Your task to perform on an android device: install app "McDonald's" Image 0: 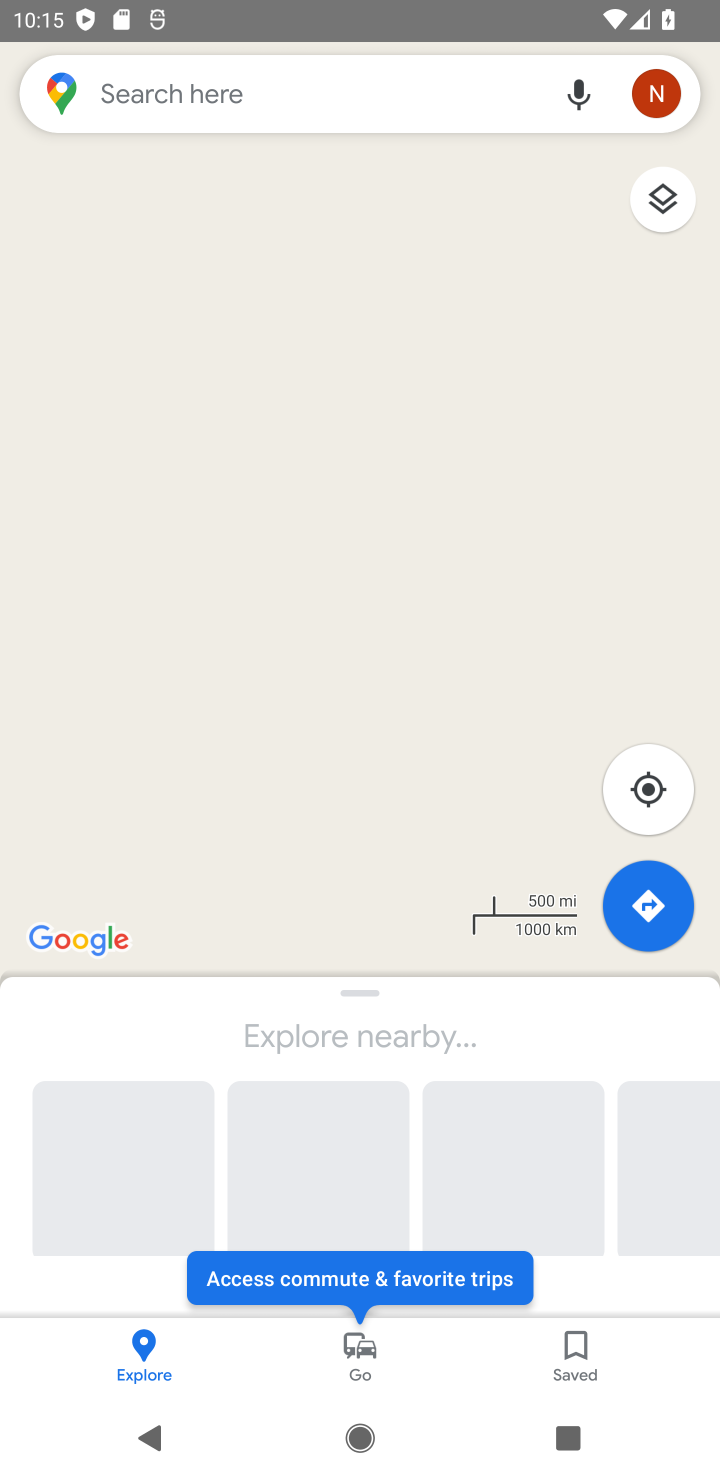
Step 0: press home button
Your task to perform on an android device: install app "McDonald's" Image 1: 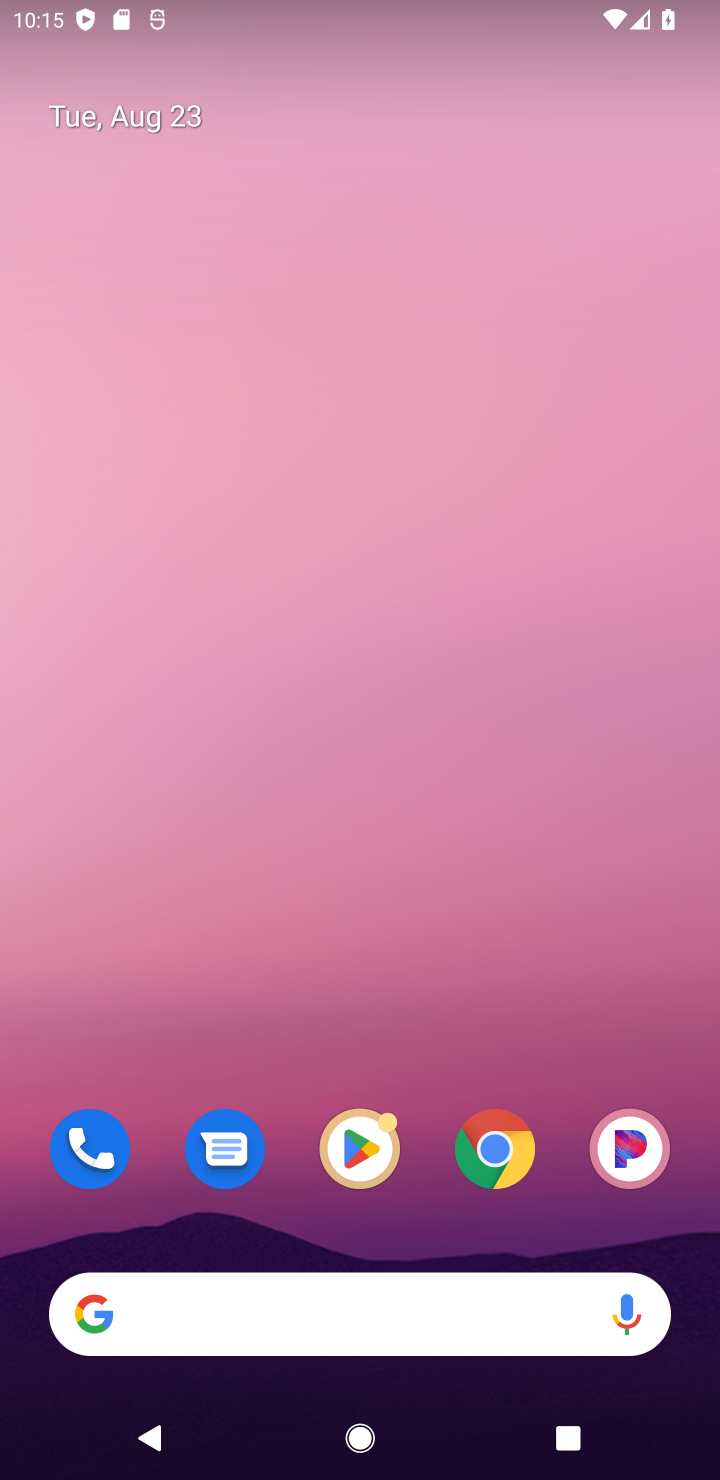
Step 1: click (356, 1156)
Your task to perform on an android device: install app "McDonald's" Image 2: 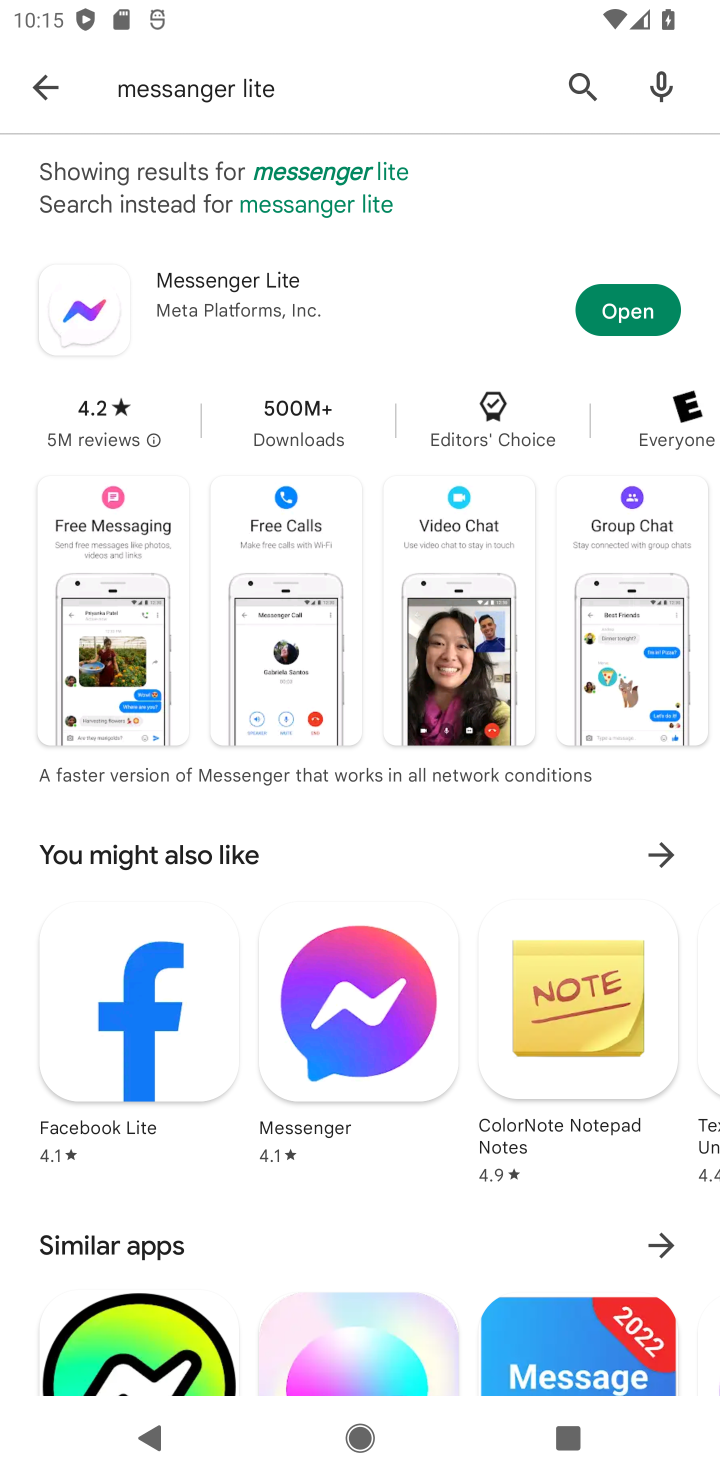
Step 2: click (569, 80)
Your task to perform on an android device: install app "McDonald's" Image 3: 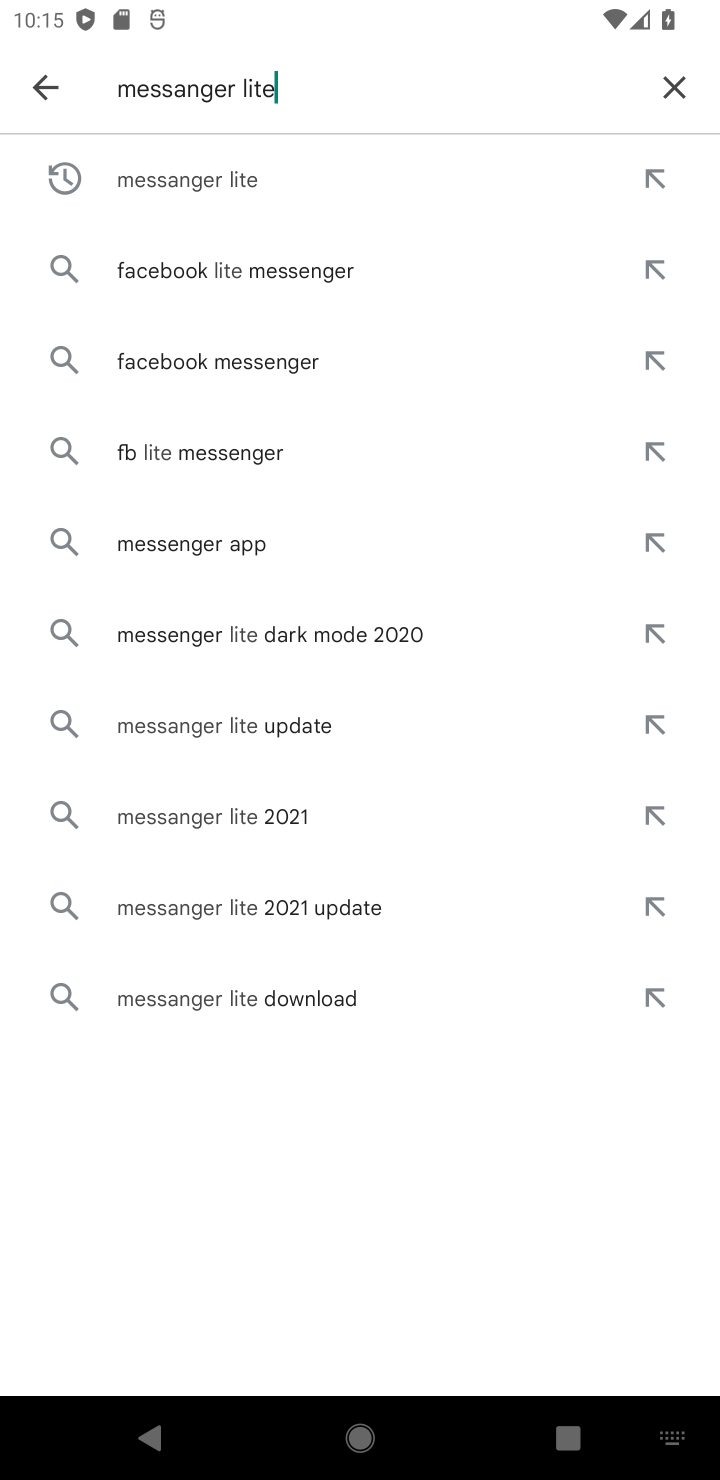
Step 3: click (661, 80)
Your task to perform on an android device: install app "McDonald's" Image 4: 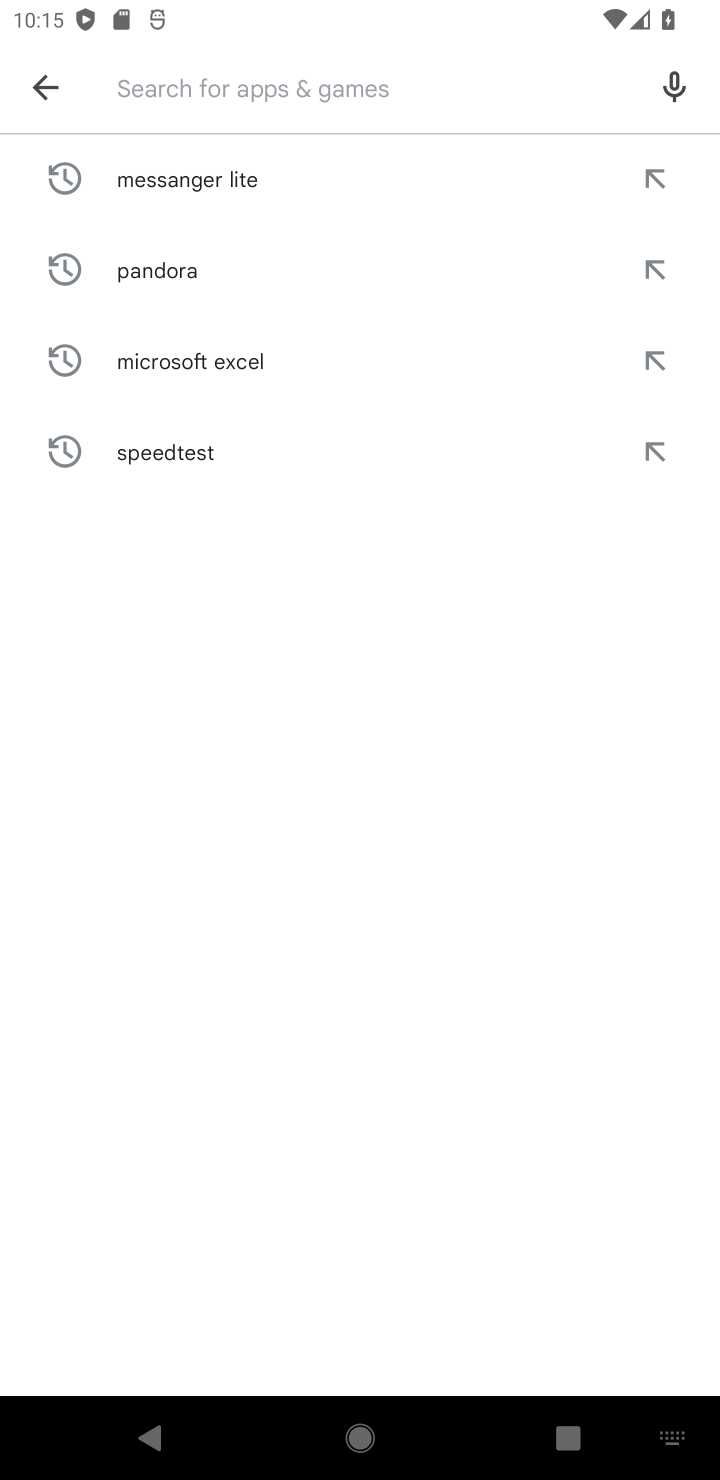
Step 4: type "venmo"
Your task to perform on an android device: install app "McDonald's" Image 5: 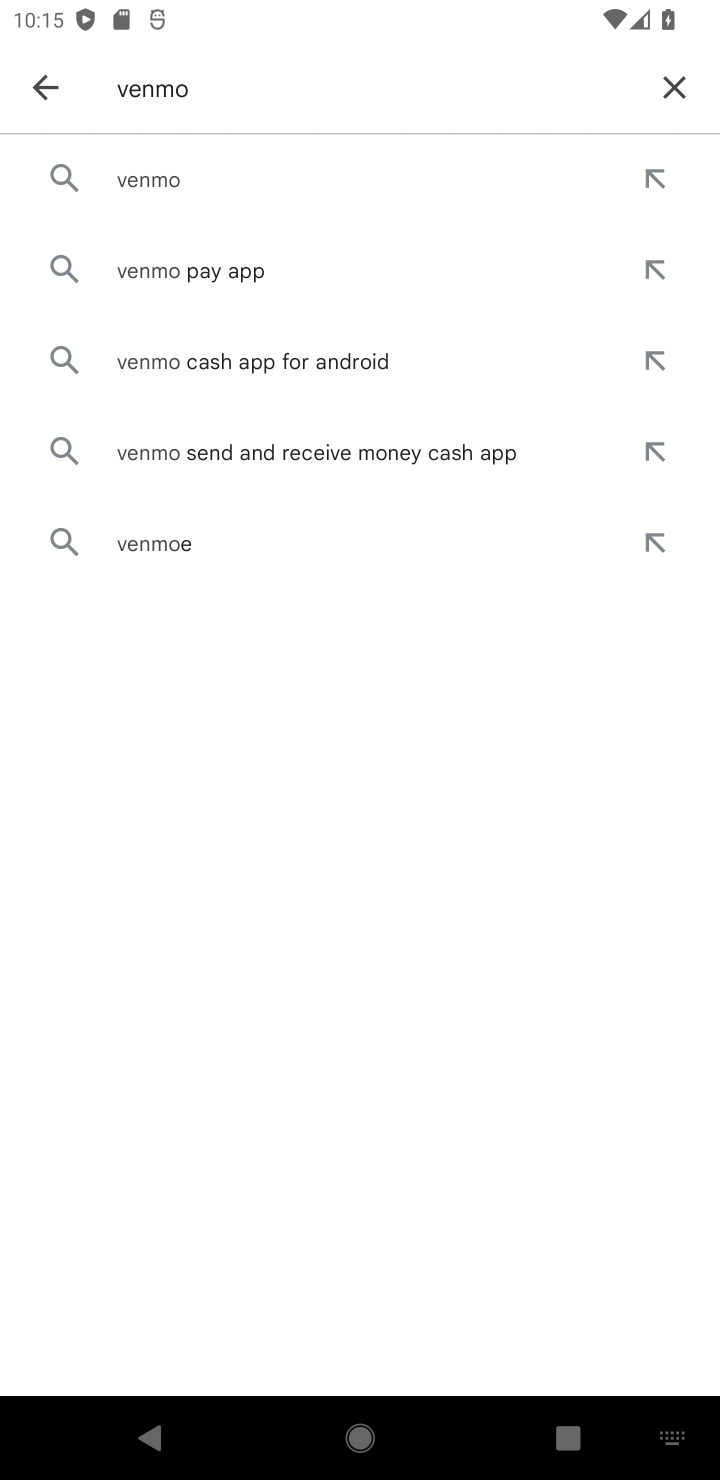
Step 5: click (662, 91)
Your task to perform on an android device: install app "McDonald's" Image 6: 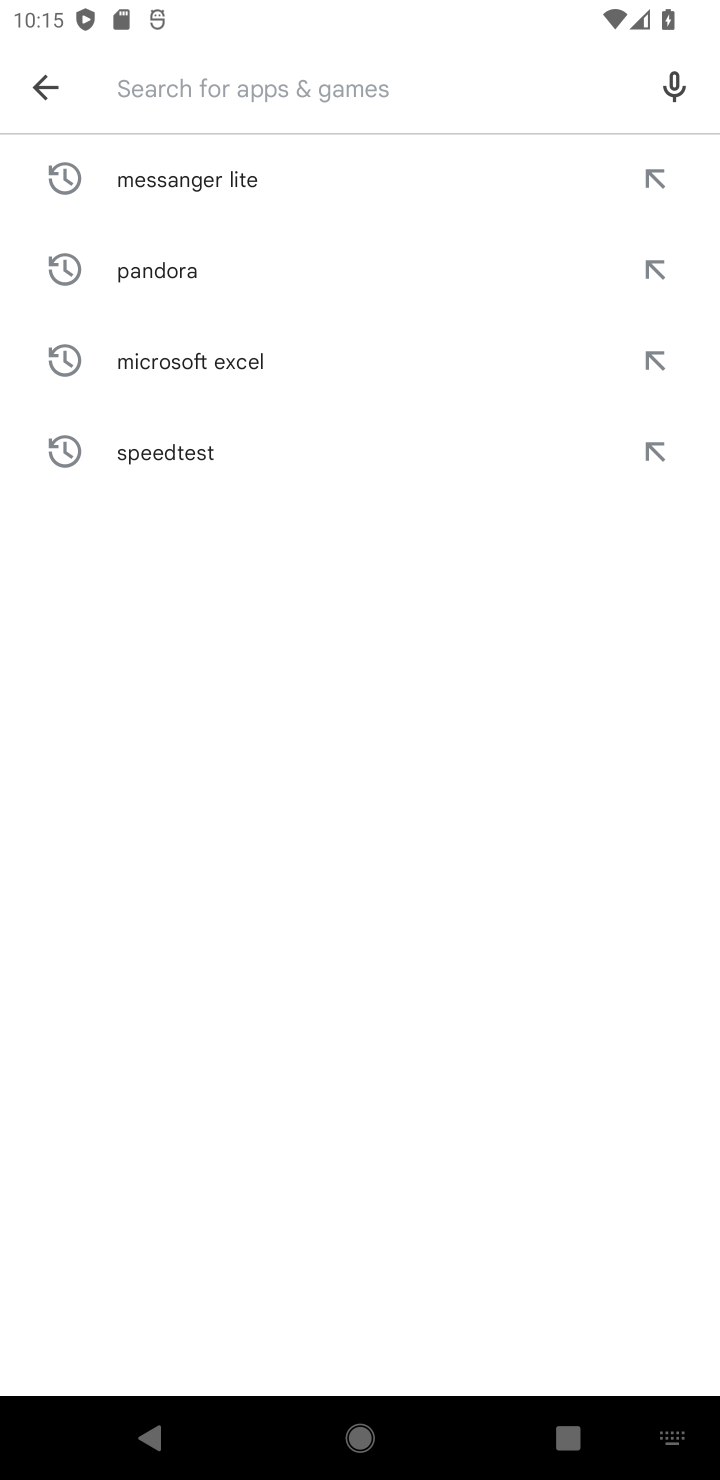
Step 6: type "mcdoland"
Your task to perform on an android device: install app "McDonald's" Image 7: 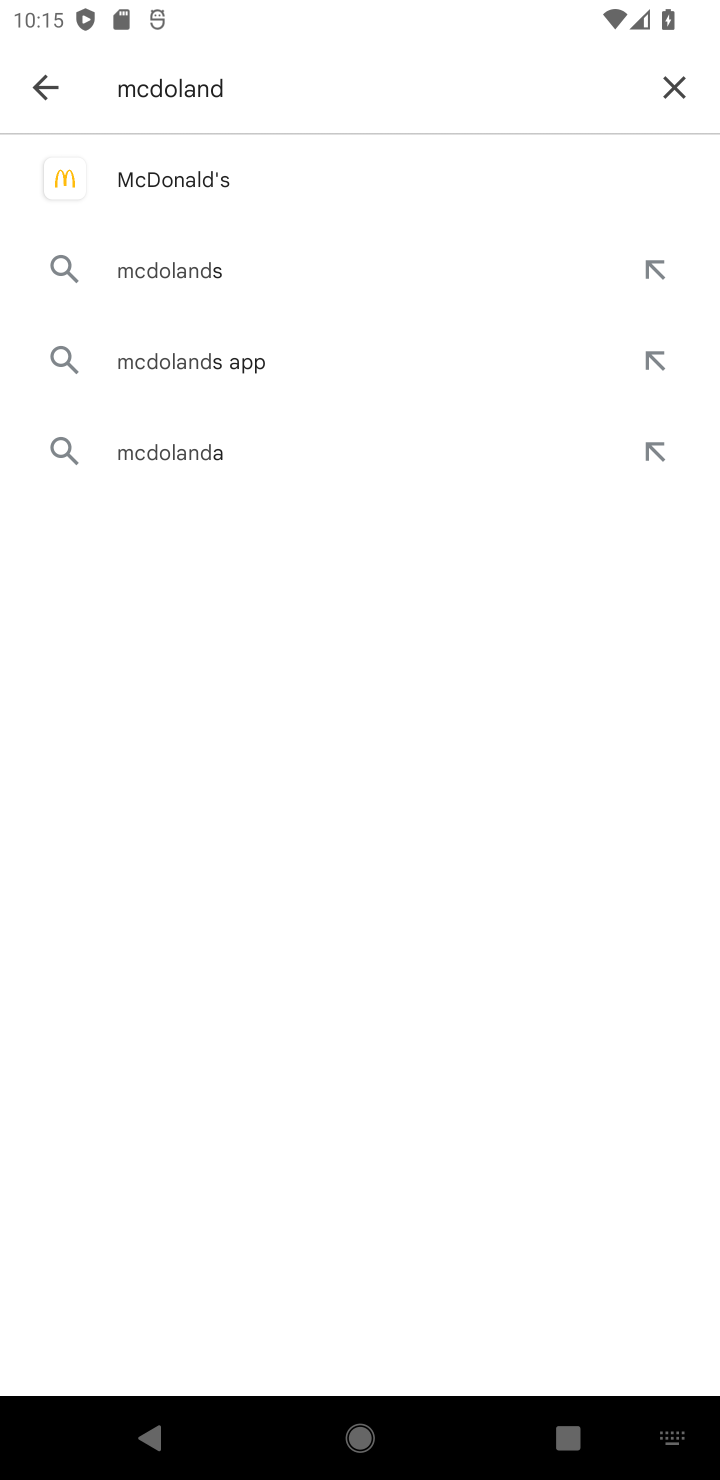
Step 7: click (359, 168)
Your task to perform on an android device: install app "McDonald's" Image 8: 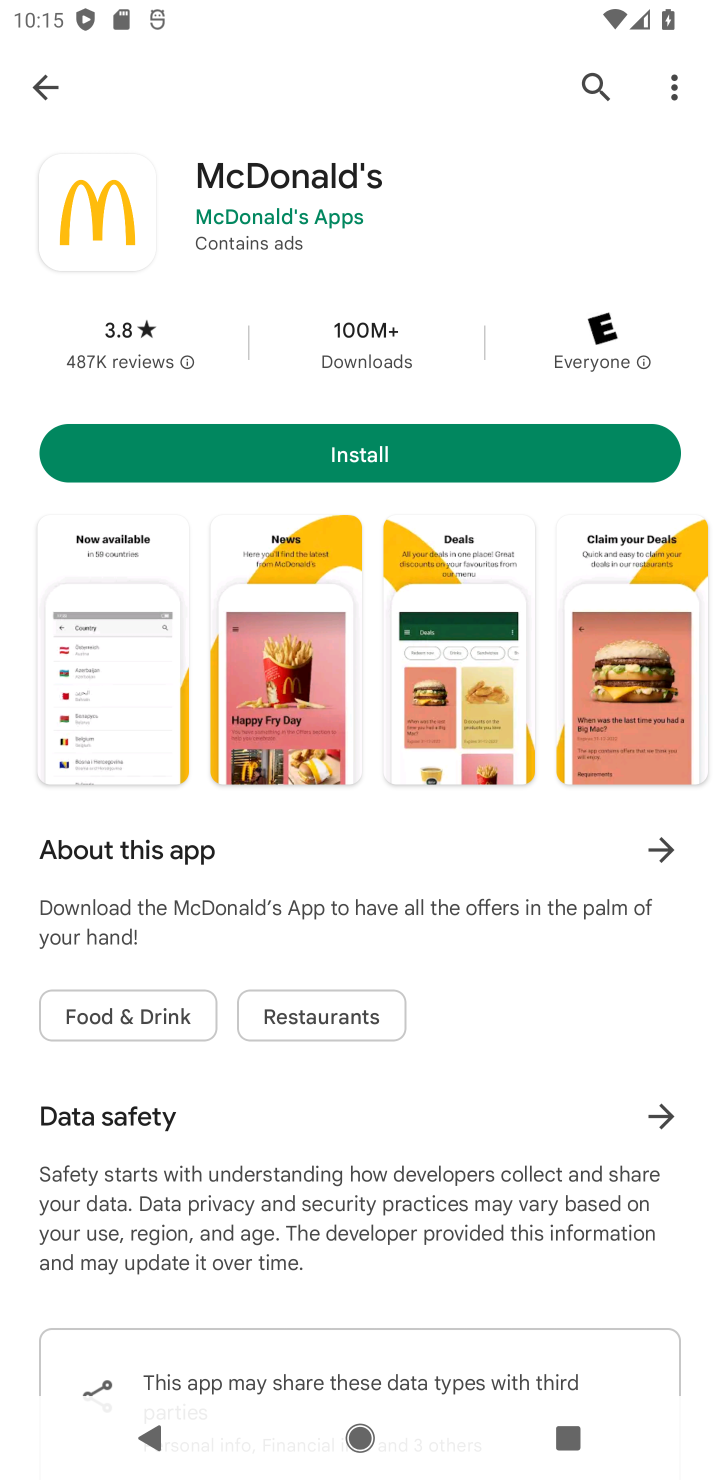
Step 8: click (531, 439)
Your task to perform on an android device: install app "McDonald's" Image 9: 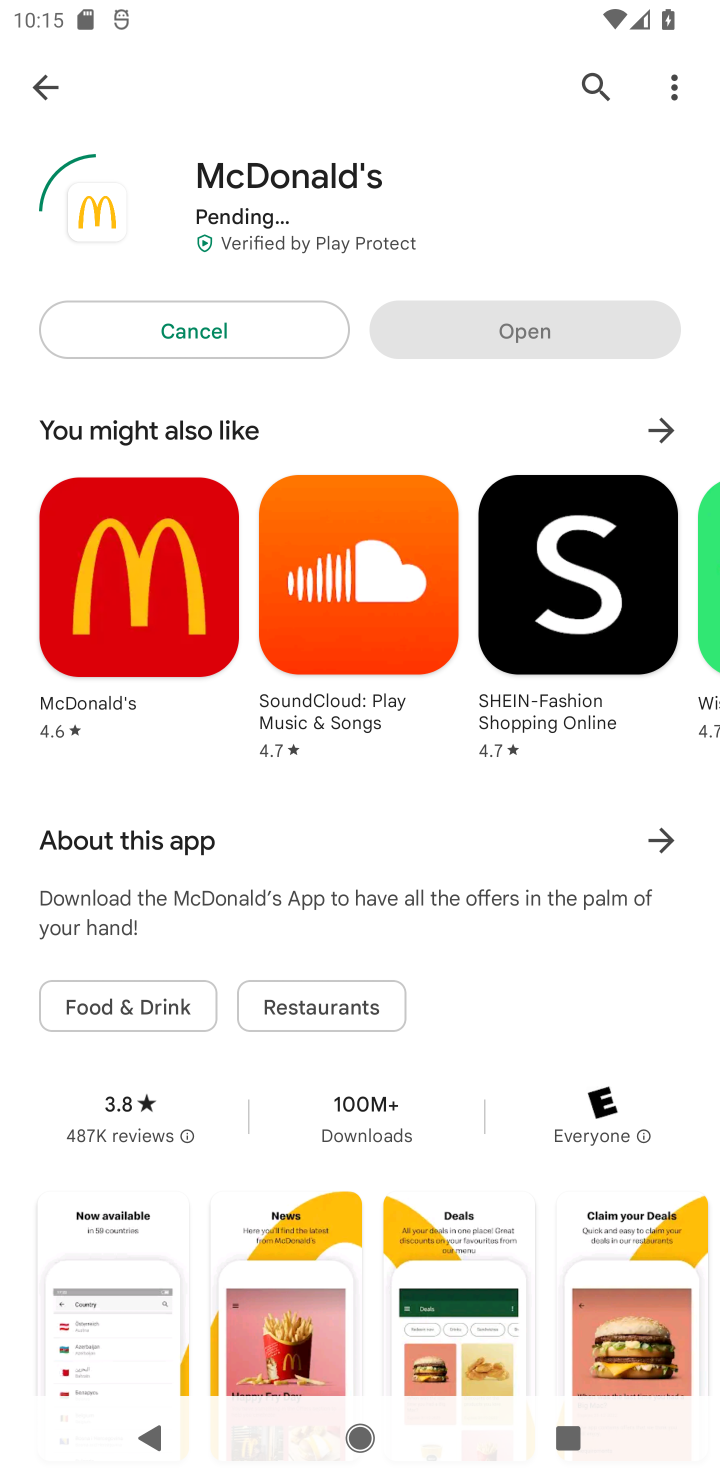
Step 9: task complete